Your task to perform on an android device: Go to notification settings Image 0: 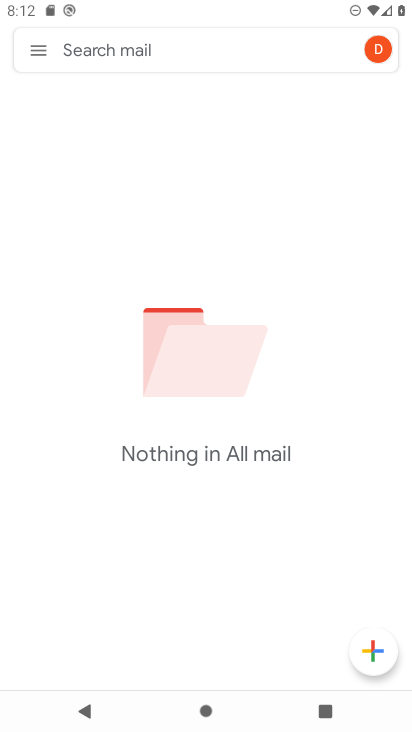
Step 0: click (37, 45)
Your task to perform on an android device: Go to notification settings Image 1: 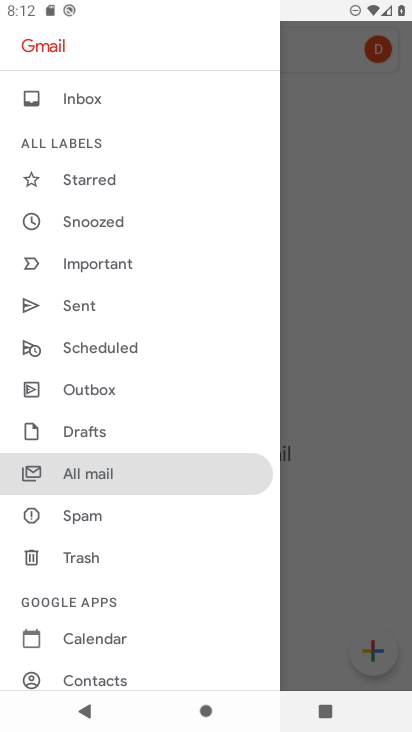
Step 1: drag from (144, 634) to (150, 158)
Your task to perform on an android device: Go to notification settings Image 2: 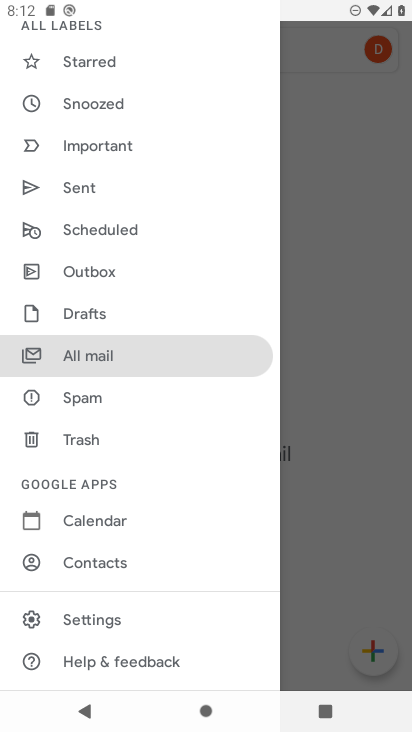
Step 2: click (129, 616)
Your task to perform on an android device: Go to notification settings Image 3: 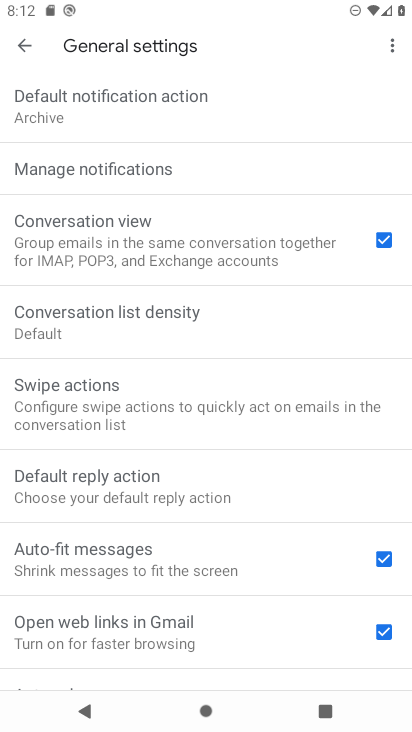
Step 3: click (127, 171)
Your task to perform on an android device: Go to notification settings Image 4: 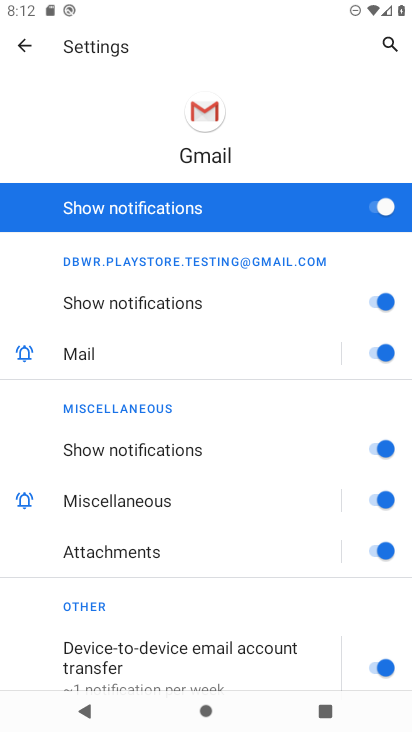
Step 4: task complete